Your task to perform on an android device: move an email to a new category in the gmail app Image 0: 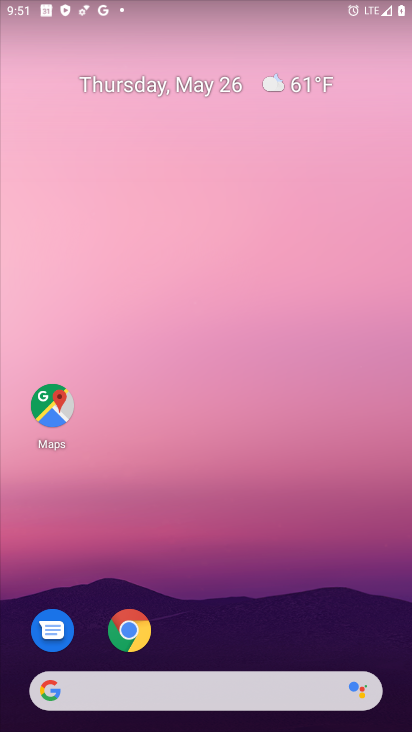
Step 0: drag from (214, 653) to (356, 15)
Your task to perform on an android device: move an email to a new category in the gmail app Image 1: 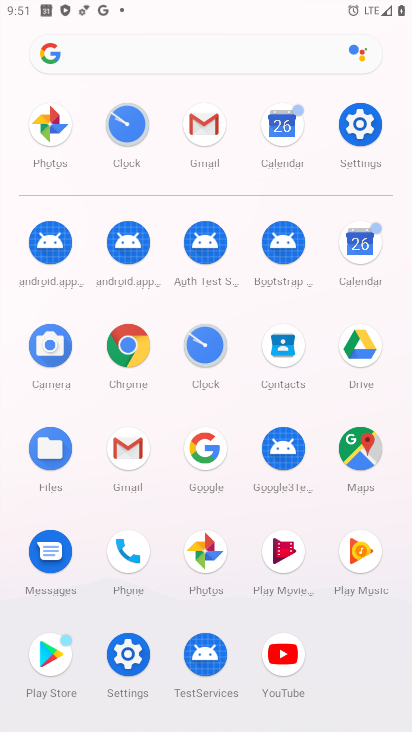
Step 1: click (132, 451)
Your task to perform on an android device: move an email to a new category in the gmail app Image 2: 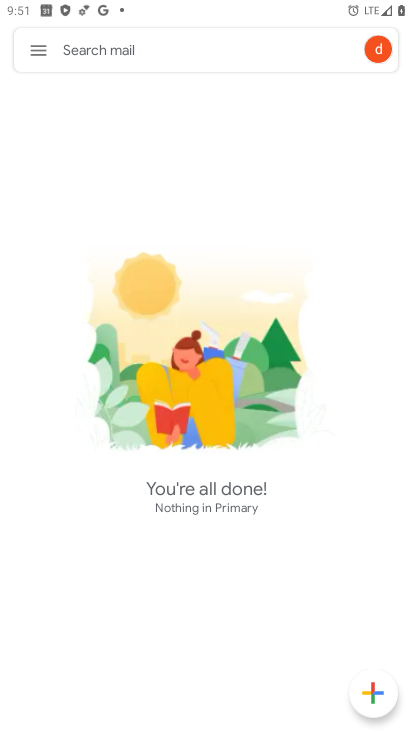
Step 2: task complete